Your task to perform on an android device: Go to Android settings Image 0: 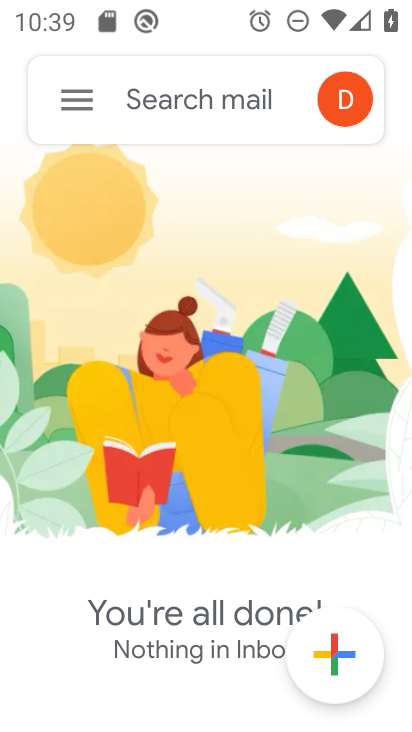
Step 0: press home button
Your task to perform on an android device: Go to Android settings Image 1: 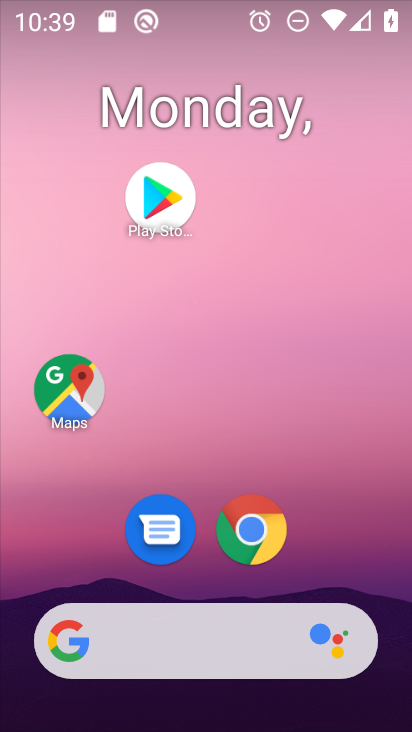
Step 1: drag from (325, 542) to (224, 45)
Your task to perform on an android device: Go to Android settings Image 2: 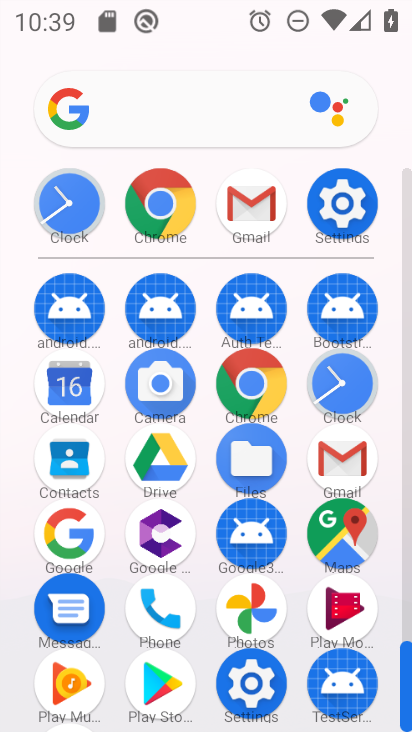
Step 2: click (342, 201)
Your task to perform on an android device: Go to Android settings Image 3: 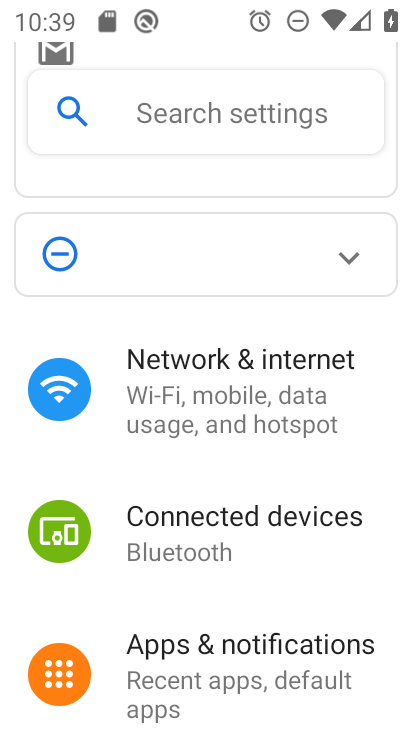
Step 3: task complete